Your task to perform on an android device: Open Google Maps and go to "Timeline" Image 0: 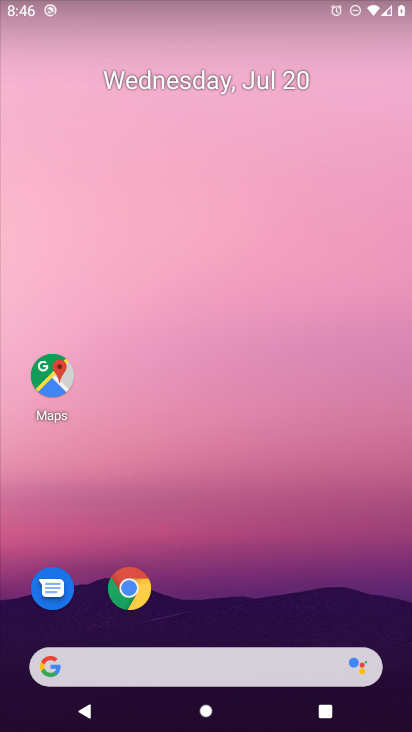
Step 0: click (123, 595)
Your task to perform on an android device: Open Google Maps and go to "Timeline" Image 1: 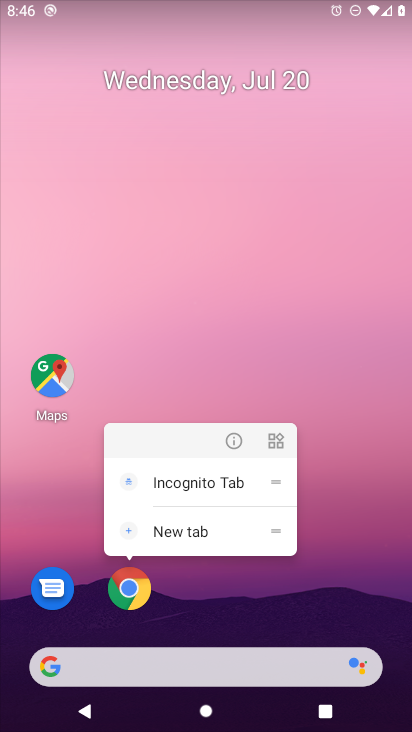
Step 1: click (50, 375)
Your task to perform on an android device: Open Google Maps and go to "Timeline" Image 2: 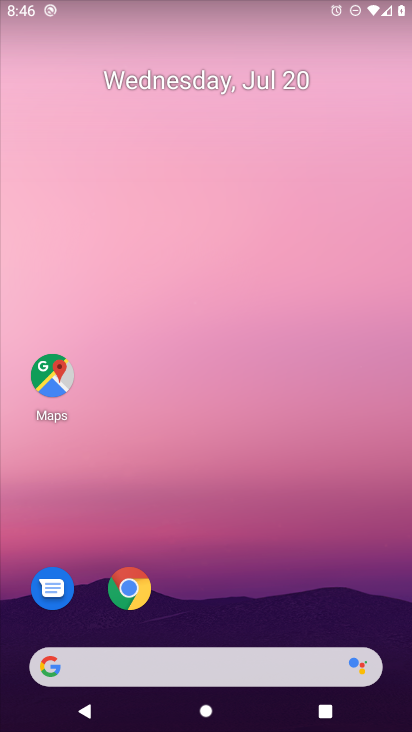
Step 2: click (61, 382)
Your task to perform on an android device: Open Google Maps and go to "Timeline" Image 3: 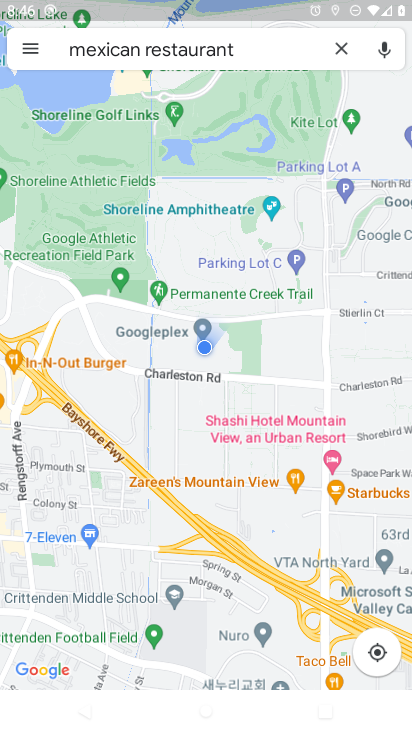
Step 3: click (31, 43)
Your task to perform on an android device: Open Google Maps and go to "Timeline" Image 4: 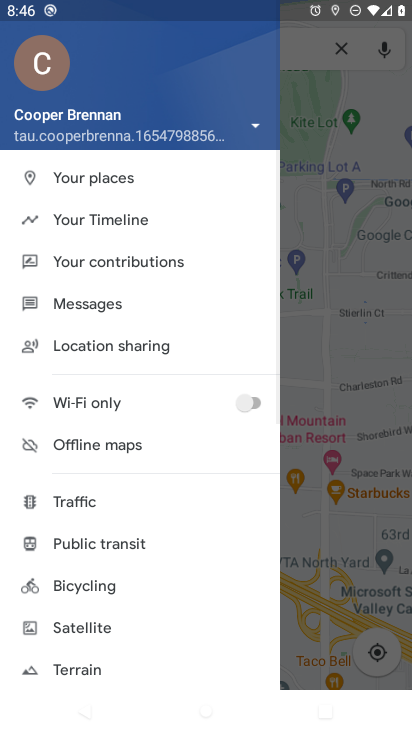
Step 4: click (98, 229)
Your task to perform on an android device: Open Google Maps and go to "Timeline" Image 5: 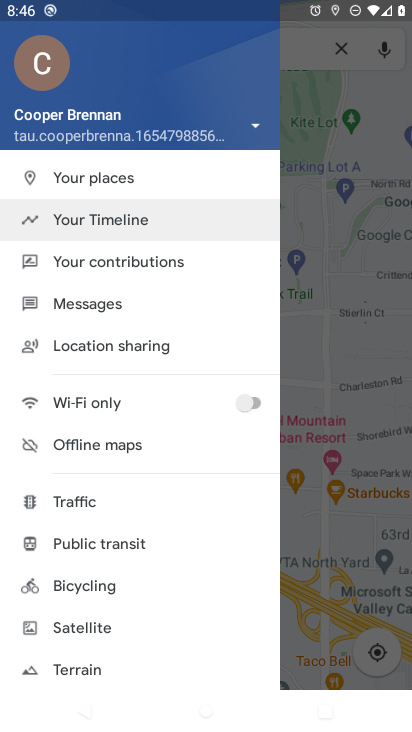
Step 5: click (98, 228)
Your task to perform on an android device: Open Google Maps and go to "Timeline" Image 6: 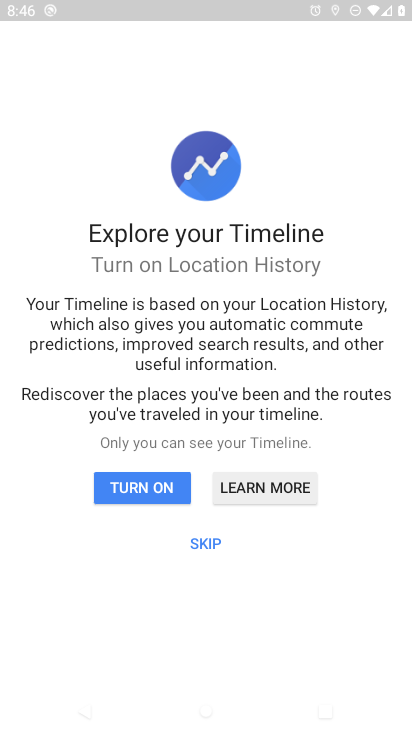
Step 6: click (210, 543)
Your task to perform on an android device: Open Google Maps and go to "Timeline" Image 7: 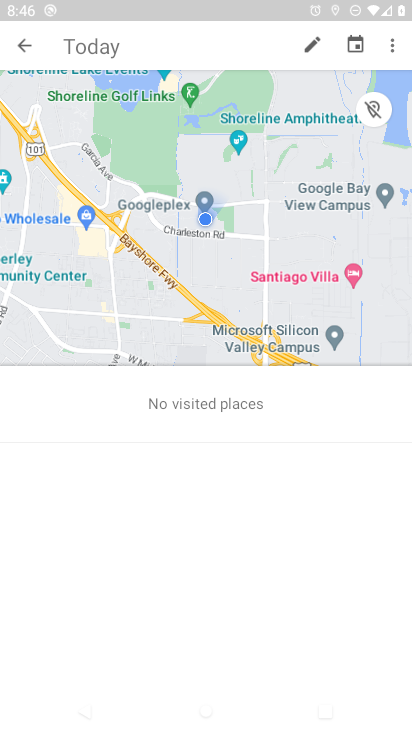
Step 7: task complete